Your task to perform on an android device: Show the shopping cart on bestbuy. Search for apple airpods on bestbuy, select the first entry, and add it to the cart. Image 0: 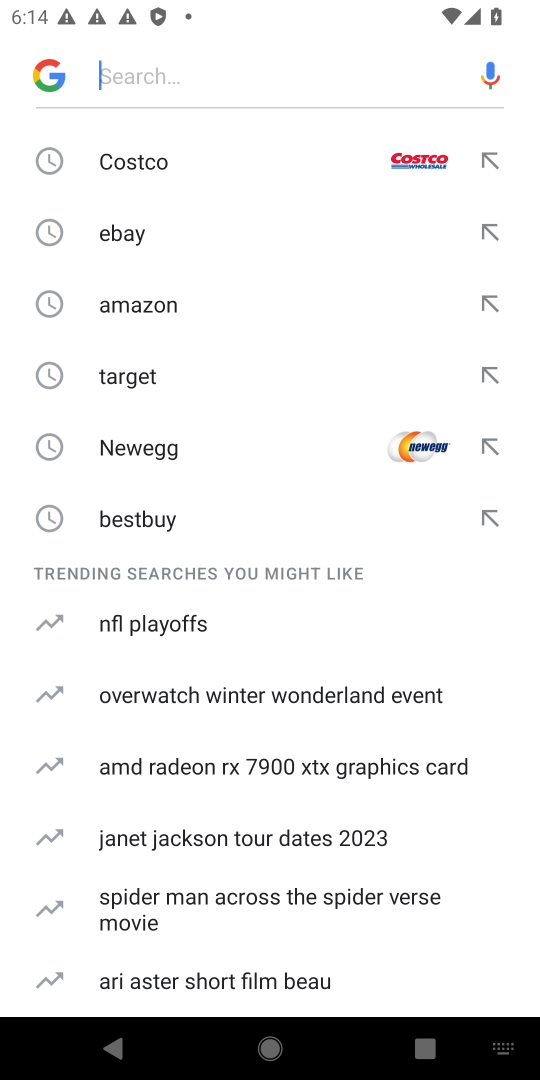
Step 0: click (226, 178)
Your task to perform on an android device: Show the shopping cart on bestbuy. Search for apple airpods on bestbuy, select the first entry, and add it to the cart. Image 1: 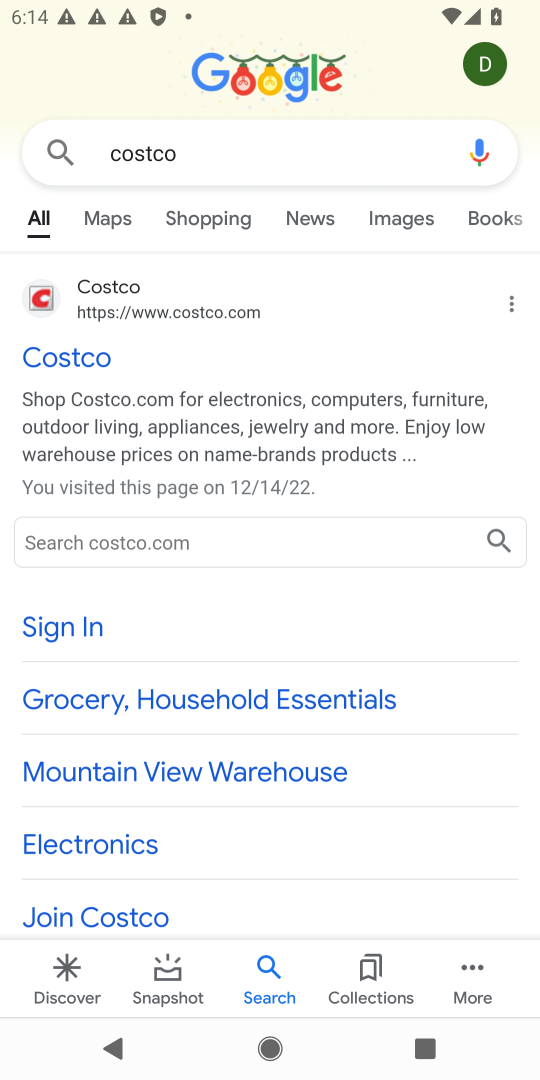
Step 1: click (52, 337)
Your task to perform on an android device: Show the shopping cart on bestbuy. Search for apple airpods on bestbuy, select the first entry, and add it to the cart. Image 2: 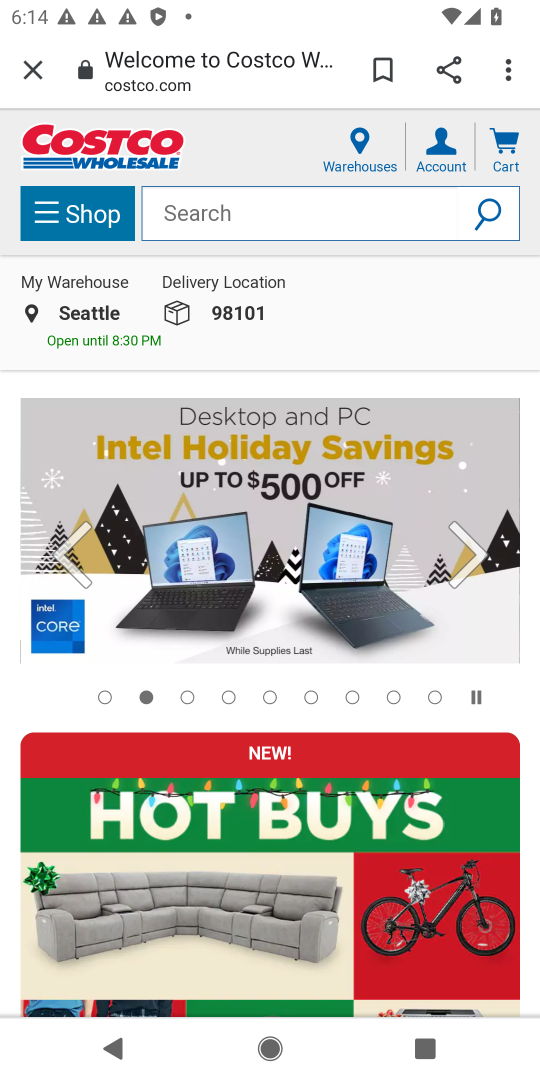
Step 2: click (284, 209)
Your task to perform on an android device: Show the shopping cart on bestbuy. Search for apple airpods on bestbuy, select the first entry, and add it to the cart. Image 3: 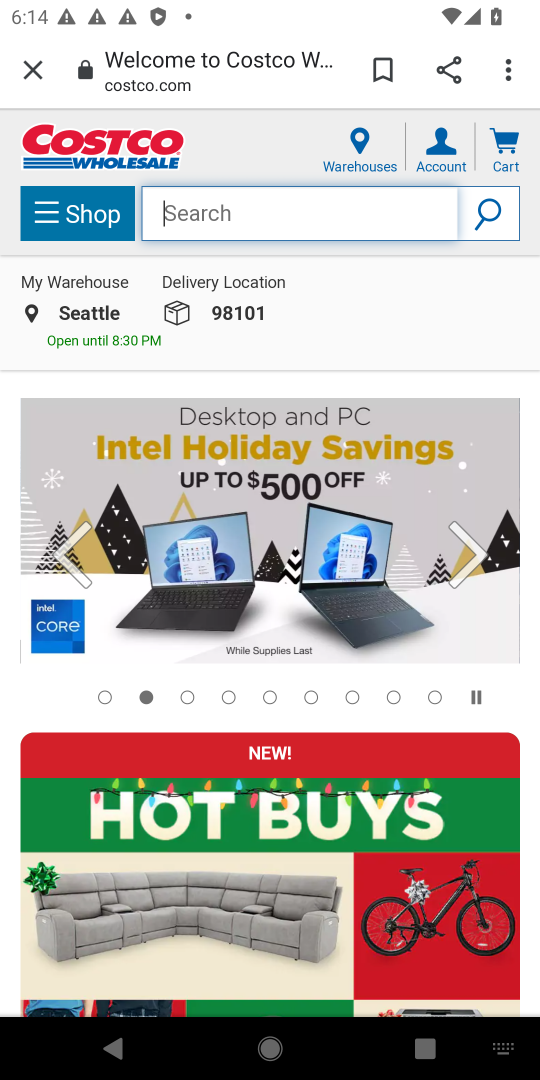
Step 3: click (251, 48)
Your task to perform on an android device: Show the shopping cart on bestbuy. Search for apple airpods on bestbuy, select the first entry, and add it to the cart. Image 4: 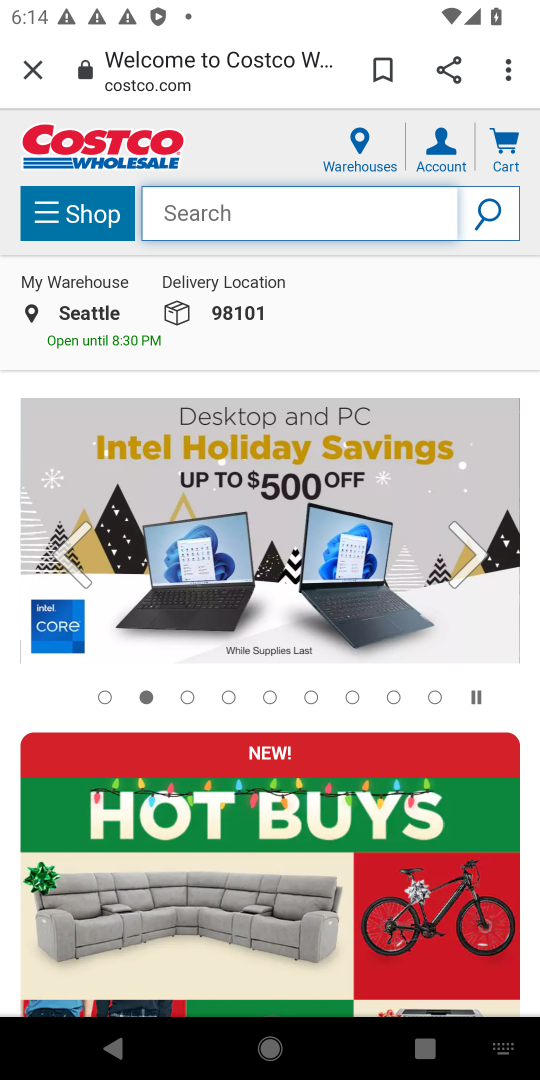
Step 4: click (251, 48)
Your task to perform on an android device: Show the shopping cart on bestbuy. Search for apple airpods on bestbuy, select the first entry, and add it to the cart. Image 5: 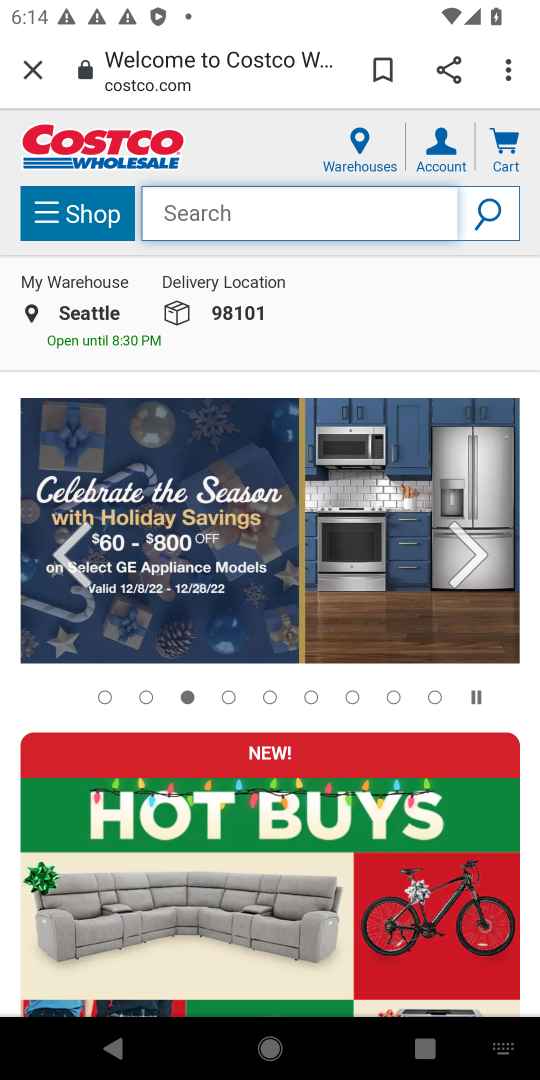
Step 5: click (38, 58)
Your task to perform on an android device: Show the shopping cart on bestbuy. Search for apple airpods on bestbuy, select the first entry, and add it to the cart. Image 6: 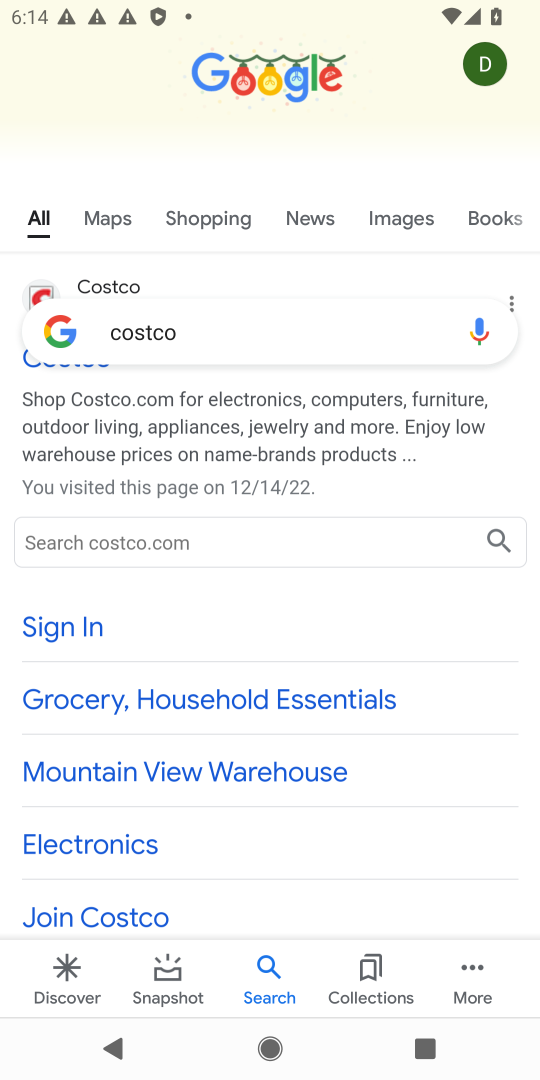
Step 6: click (179, 342)
Your task to perform on an android device: Show the shopping cart on bestbuy. Search for apple airpods on bestbuy, select the first entry, and add it to the cart. Image 7: 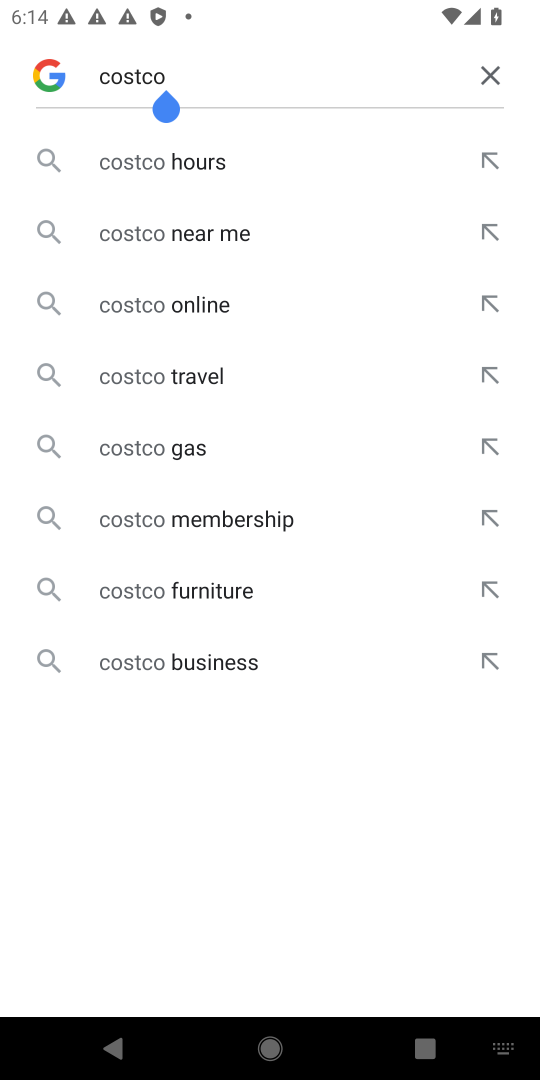
Step 7: click (497, 79)
Your task to perform on an android device: Show the shopping cart on bestbuy. Search for apple airpods on bestbuy, select the first entry, and add it to the cart. Image 8: 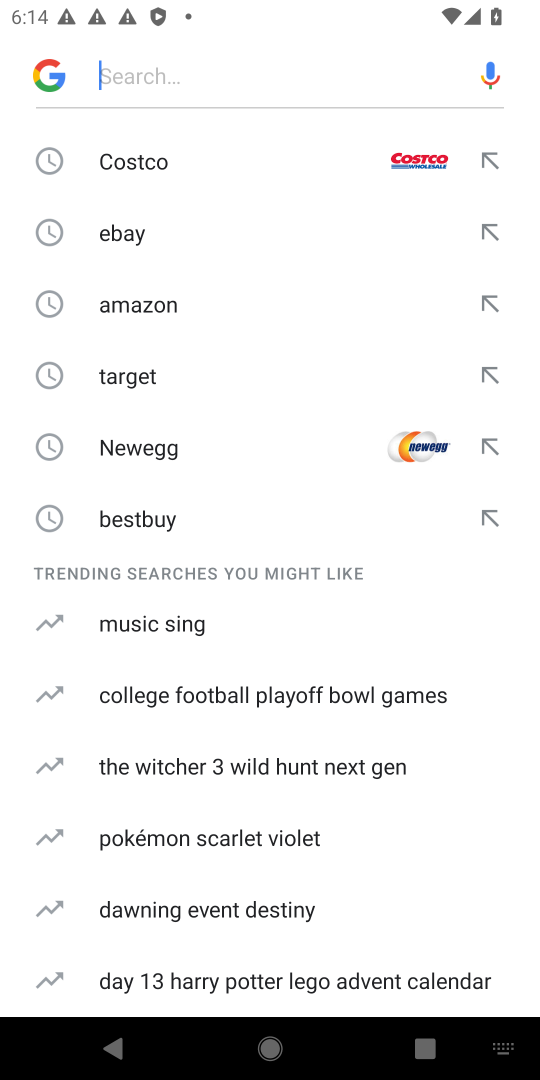
Step 8: type "bestbuy"
Your task to perform on an android device: Show the shopping cart on bestbuy. Search for apple airpods on bestbuy, select the first entry, and add it to the cart. Image 9: 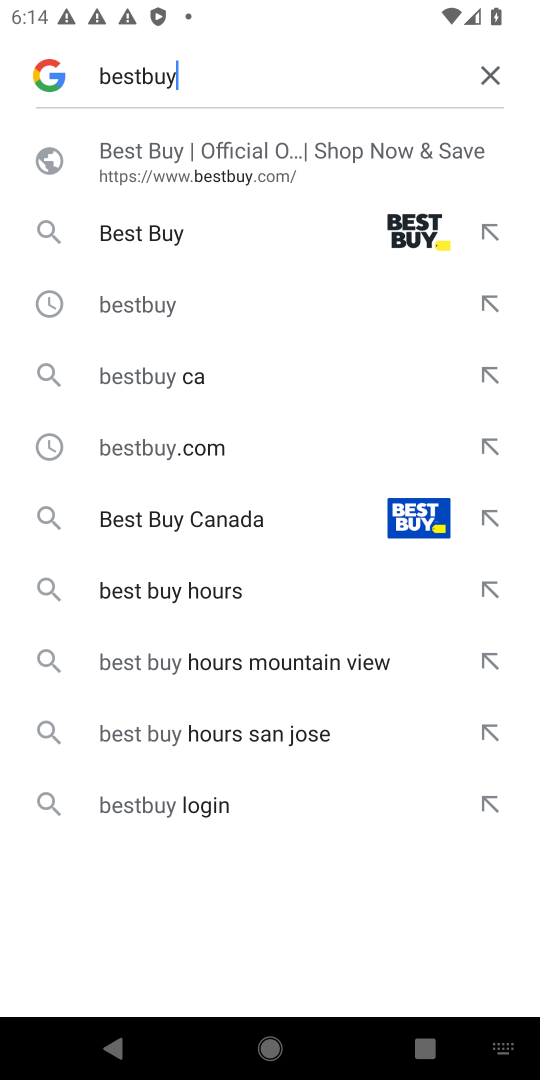
Step 9: click (227, 139)
Your task to perform on an android device: Show the shopping cart on bestbuy. Search for apple airpods on bestbuy, select the first entry, and add it to the cart. Image 10: 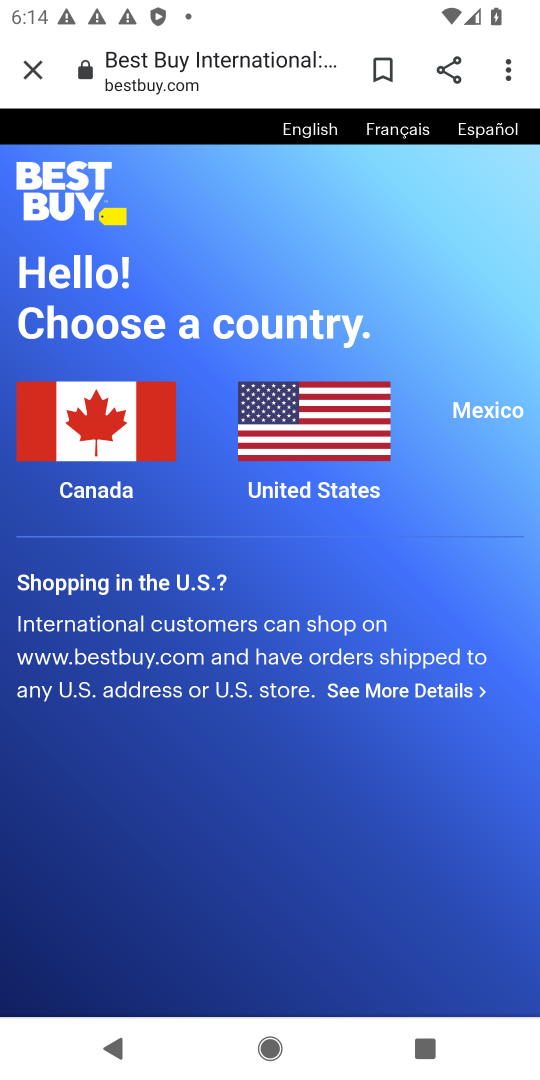
Step 10: click (98, 434)
Your task to perform on an android device: Show the shopping cart on bestbuy. Search for apple airpods on bestbuy, select the first entry, and add it to the cart. Image 11: 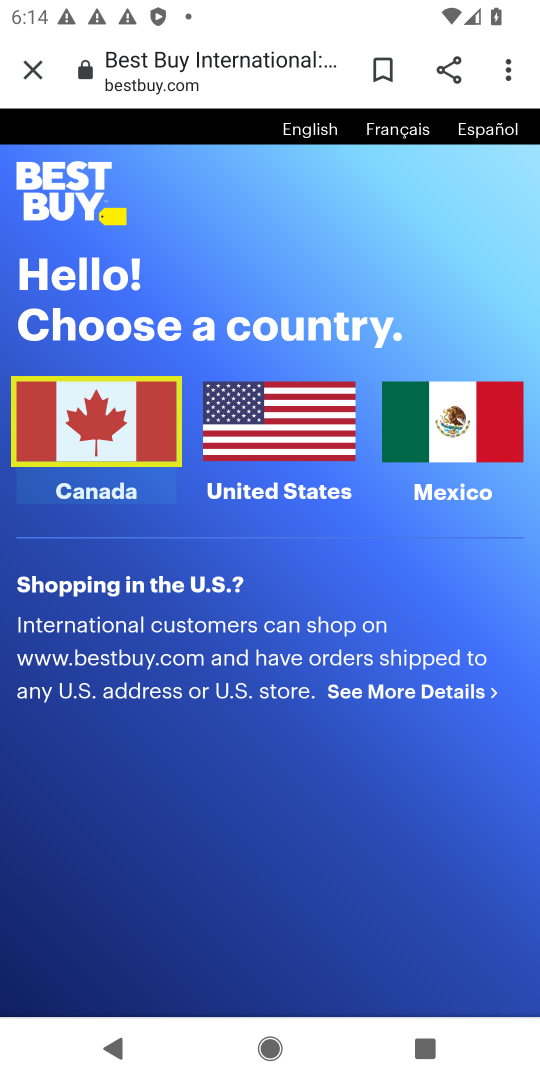
Step 11: click (98, 434)
Your task to perform on an android device: Show the shopping cart on bestbuy. Search for apple airpods on bestbuy, select the first entry, and add it to the cart. Image 12: 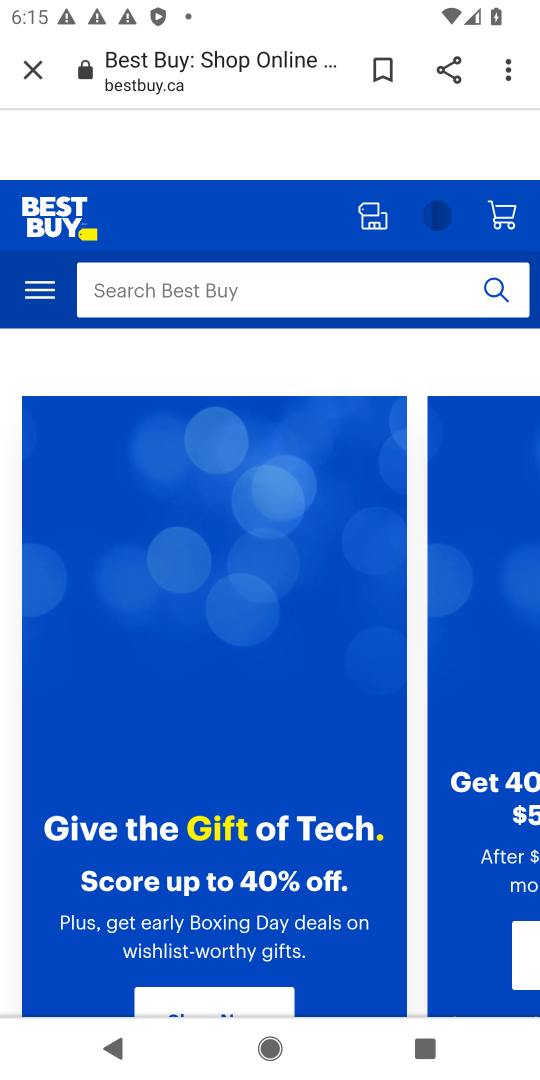
Step 12: click (232, 301)
Your task to perform on an android device: Show the shopping cart on bestbuy. Search for apple airpods on bestbuy, select the first entry, and add it to the cart. Image 13: 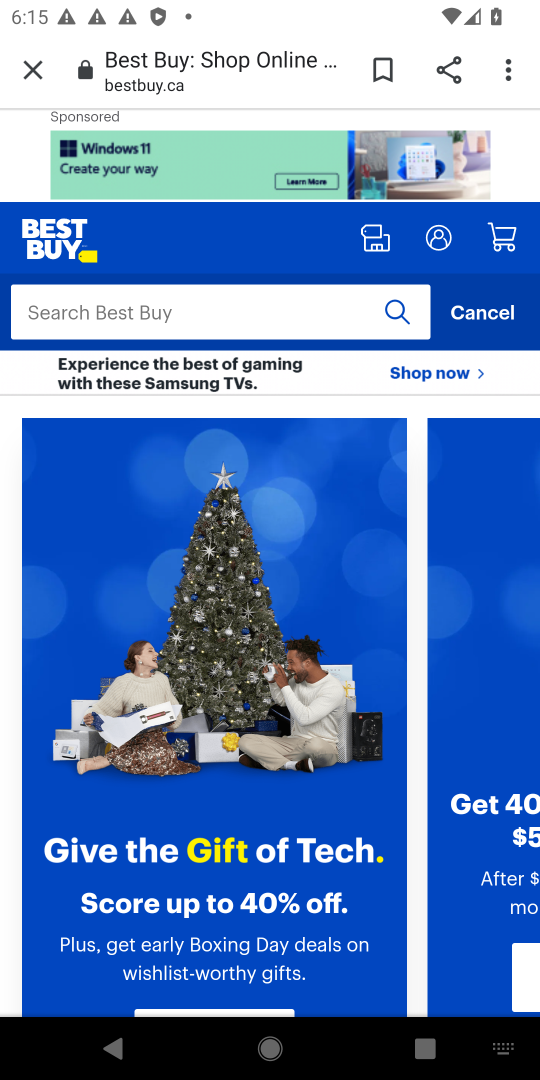
Step 13: type "apple airpod"
Your task to perform on an android device: Show the shopping cart on bestbuy. Search for apple airpods on bestbuy, select the first entry, and add it to the cart. Image 14: 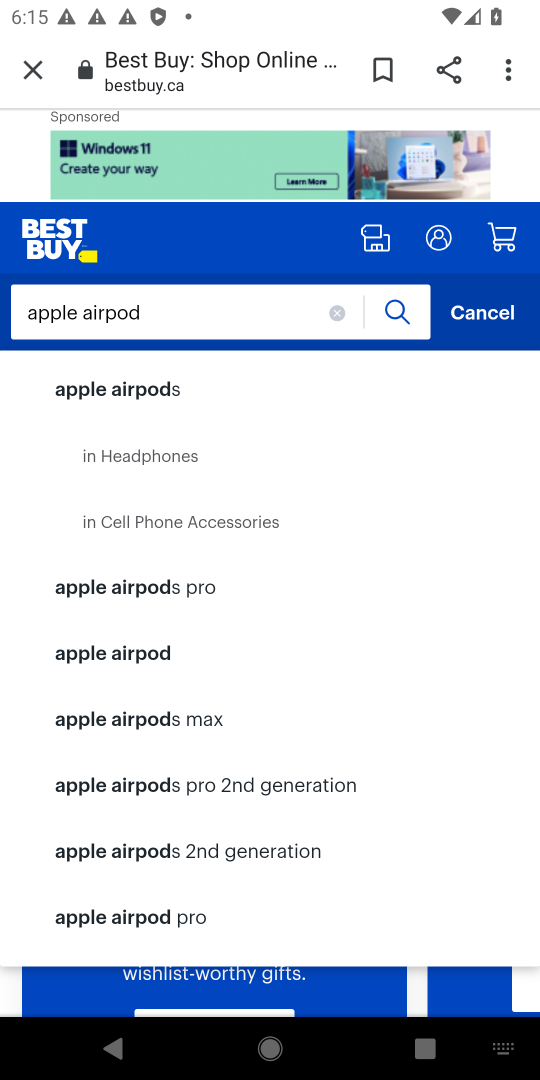
Step 14: click (391, 308)
Your task to perform on an android device: Show the shopping cart on bestbuy. Search for apple airpods on bestbuy, select the first entry, and add it to the cart. Image 15: 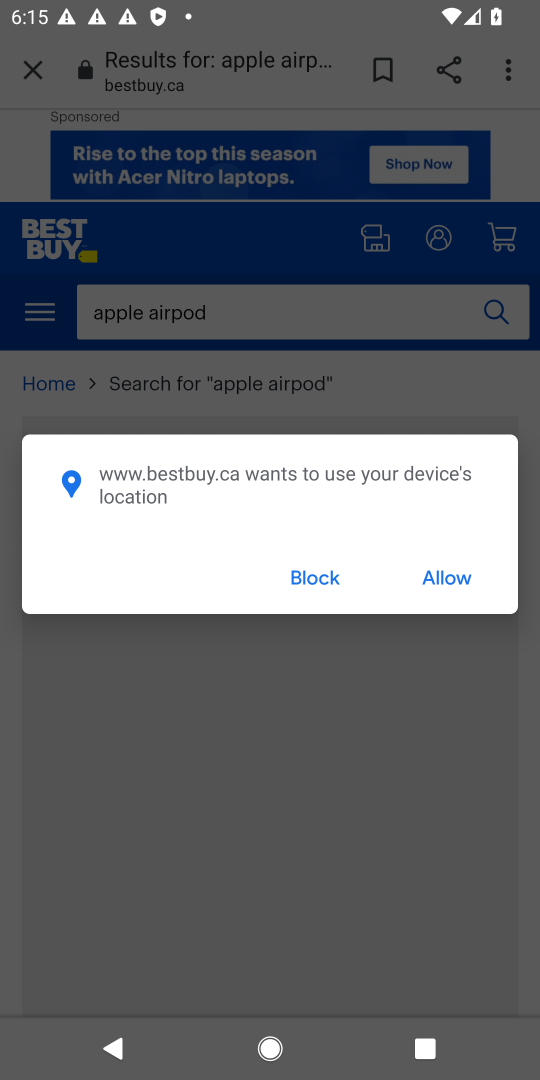
Step 15: click (436, 567)
Your task to perform on an android device: Show the shopping cart on bestbuy. Search for apple airpods on bestbuy, select the first entry, and add it to the cart. Image 16: 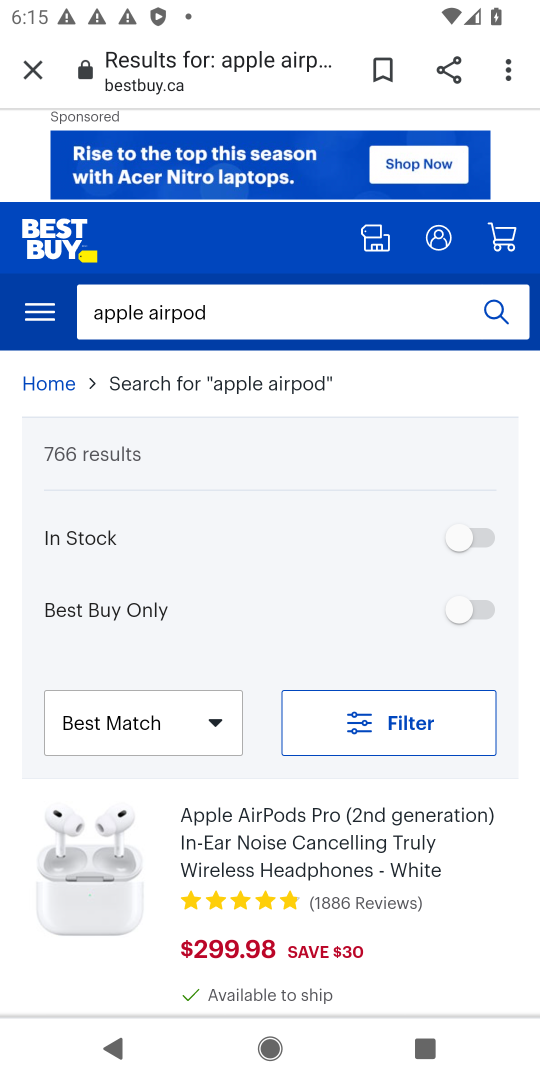
Step 16: click (501, 316)
Your task to perform on an android device: Show the shopping cart on bestbuy. Search for apple airpods on bestbuy, select the first entry, and add it to the cart. Image 17: 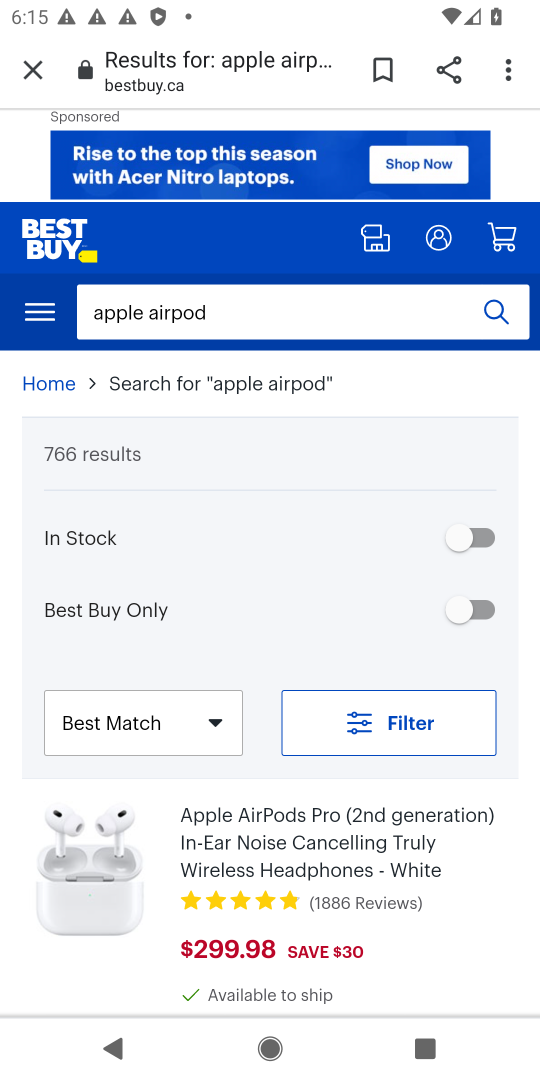
Step 17: click (488, 302)
Your task to perform on an android device: Show the shopping cart on bestbuy. Search for apple airpods on bestbuy, select the first entry, and add it to the cart. Image 18: 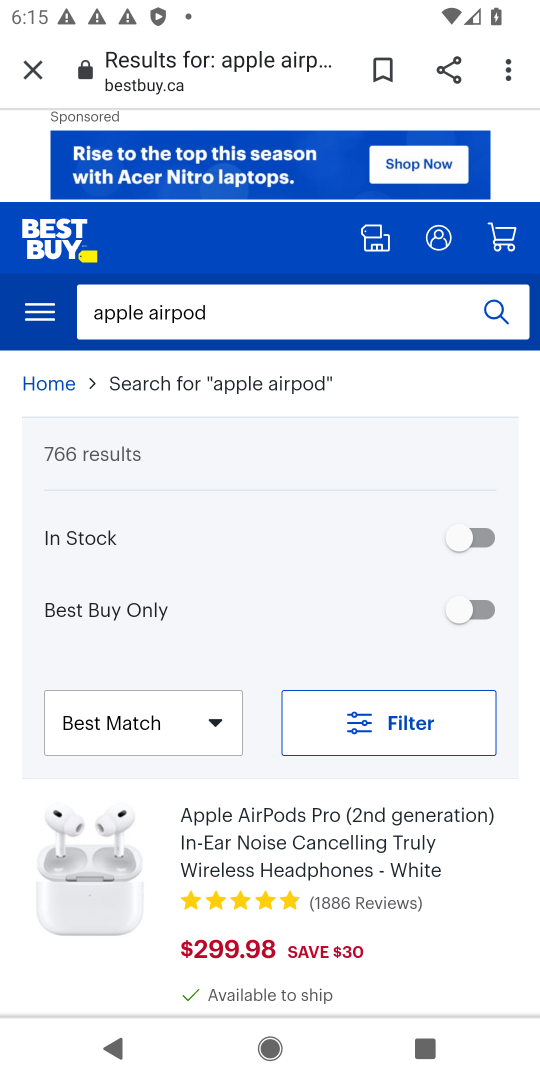
Step 18: task complete